Your task to perform on an android device: turn off notifications in google photos Image 0: 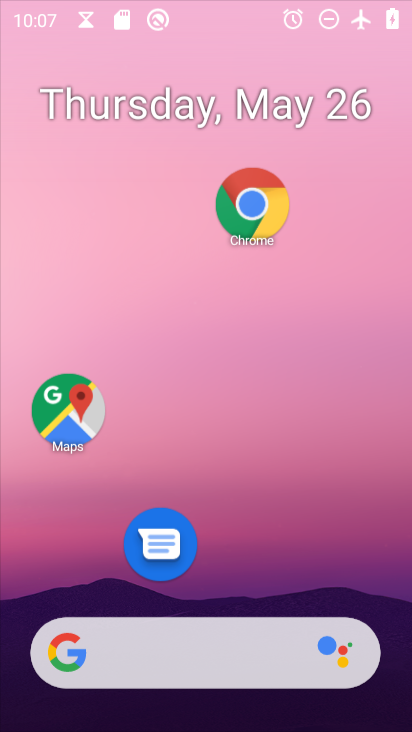
Step 0: press home button
Your task to perform on an android device: turn off notifications in google photos Image 1: 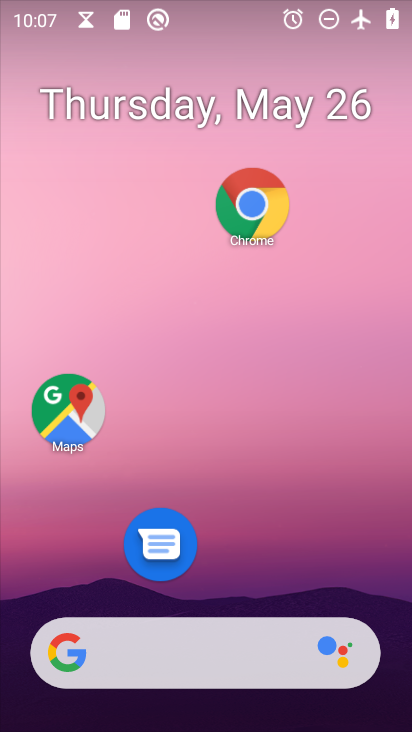
Step 1: drag from (217, 597) to (233, 53)
Your task to perform on an android device: turn off notifications in google photos Image 2: 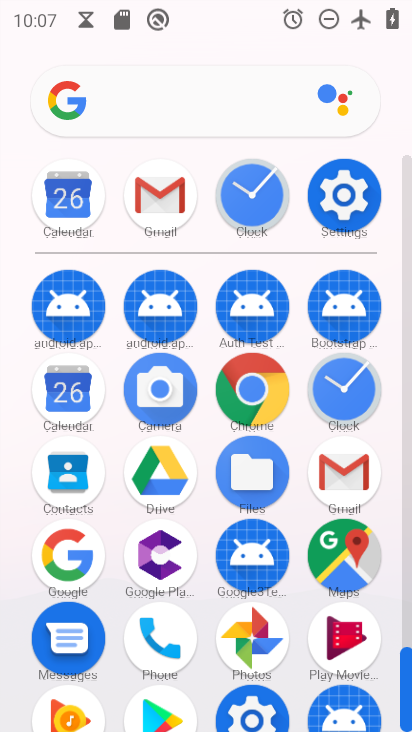
Step 2: click (250, 634)
Your task to perform on an android device: turn off notifications in google photos Image 3: 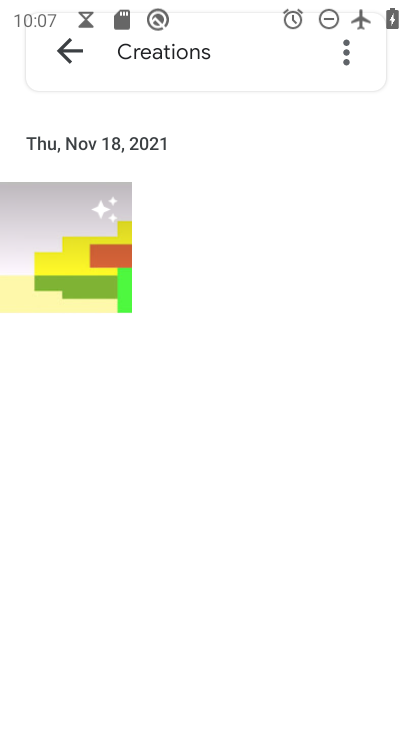
Step 3: click (73, 53)
Your task to perform on an android device: turn off notifications in google photos Image 4: 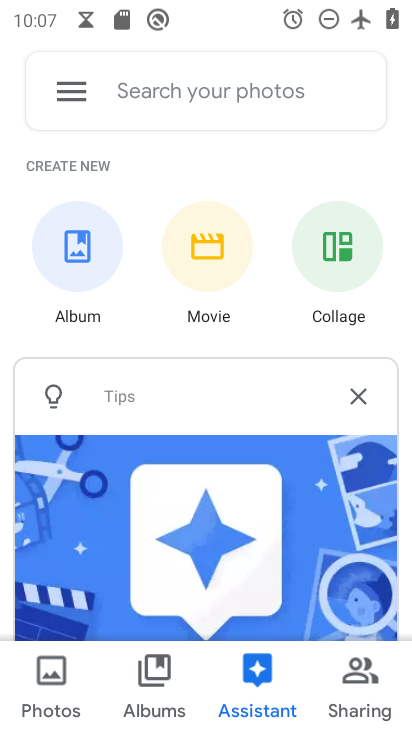
Step 4: click (71, 85)
Your task to perform on an android device: turn off notifications in google photos Image 5: 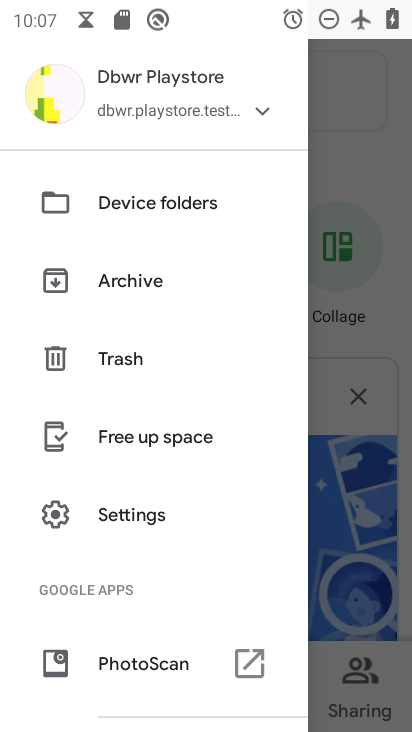
Step 5: click (177, 508)
Your task to perform on an android device: turn off notifications in google photos Image 6: 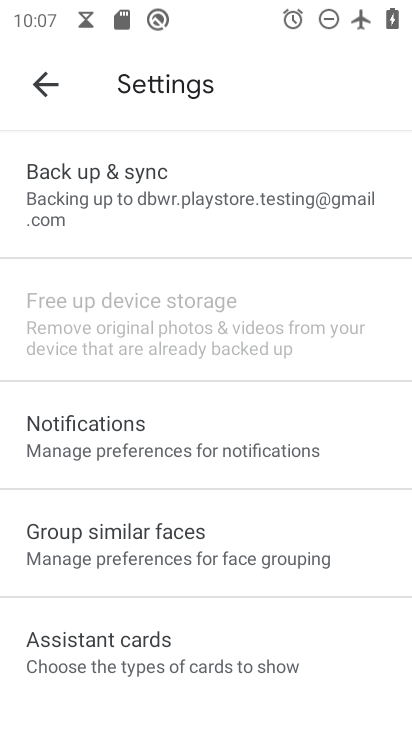
Step 6: click (168, 415)
Your task to perform on an android device: turn off notifications in google photos Image 7: 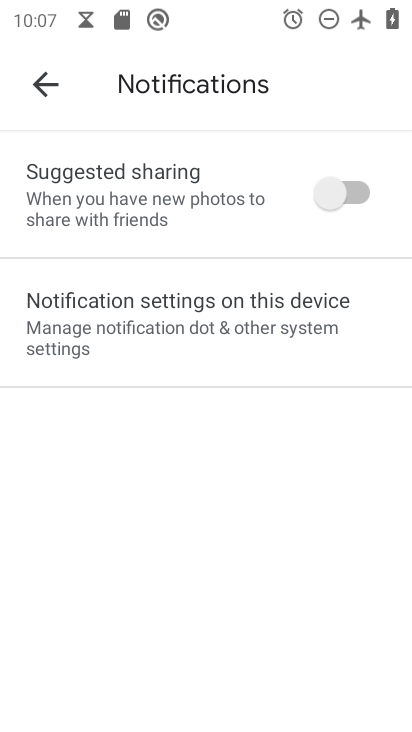
Step 7: click (173, 361)
Your task to perform on an android device: turn off notifications in google photos Image 8: 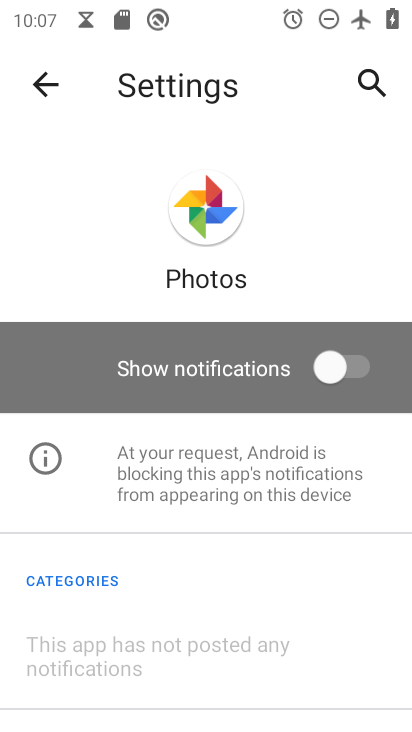
Step 8: task complete